Your task to perform on an android device: allow notifications from all sites in the chrome app Image 0: 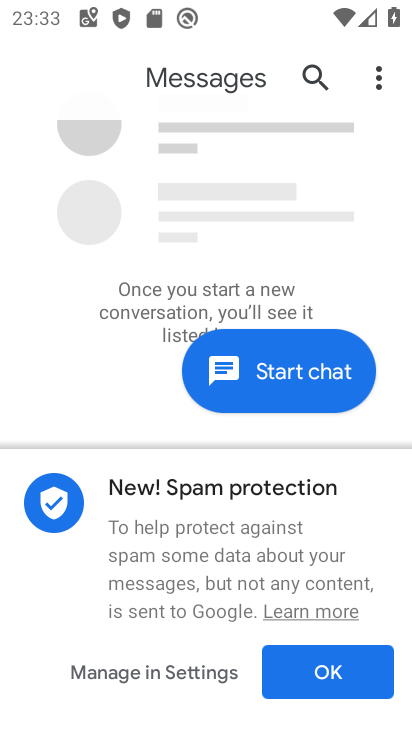
Step 0: press home button
Your task to perform on an android device: allow notifications from all sites in the chrome app Image 1: 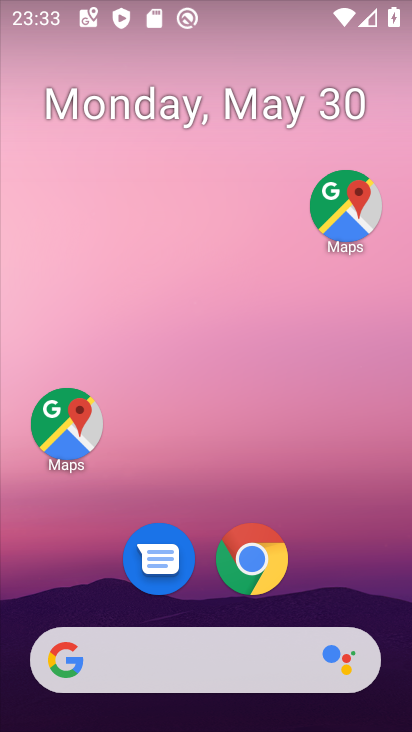
Step 1: click (251, 559)
Your task to perform on an android device: allow notifications from all sites in the chrome app Image 2: 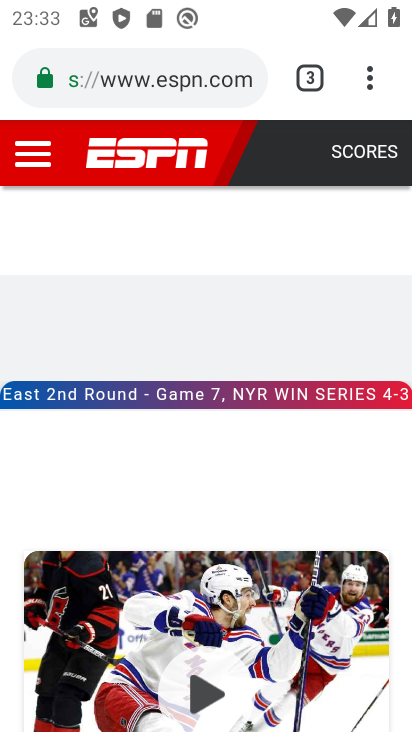
Step 2: drag from (370, 73) to (212, 630)
Your task to perform on an android device: allow notifications from all sites in the chrome app Image 3: 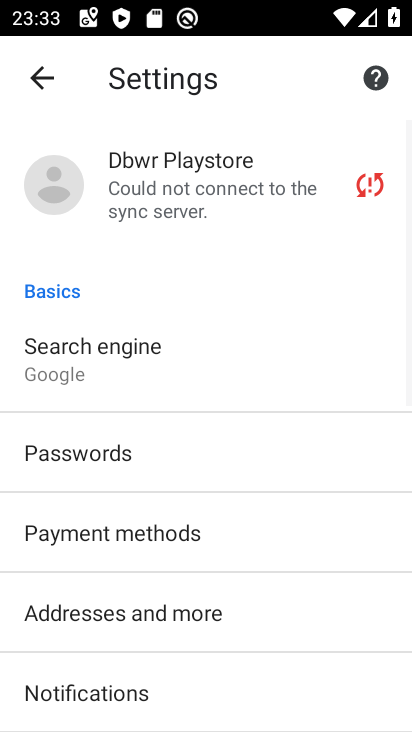
Step 3: drag from (207, 685) to (201, 235)
Your task to perform on an android device: allow notifications from all sites in the chrome app Image 4: 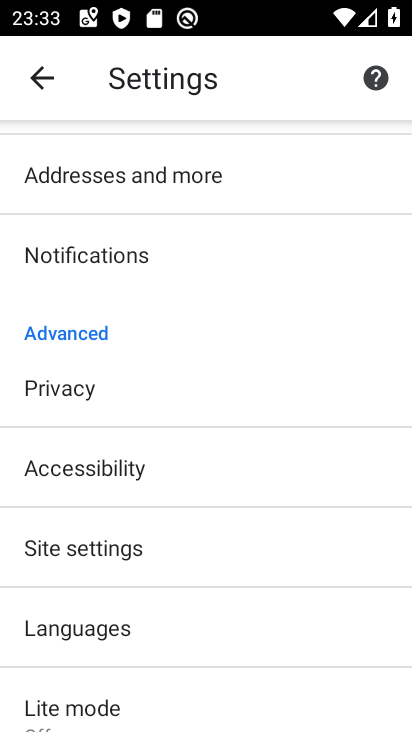
Step 4: click (137, 260)
Your task to perform on an android device: allow notifications from all sites in the chrome app Image 5: 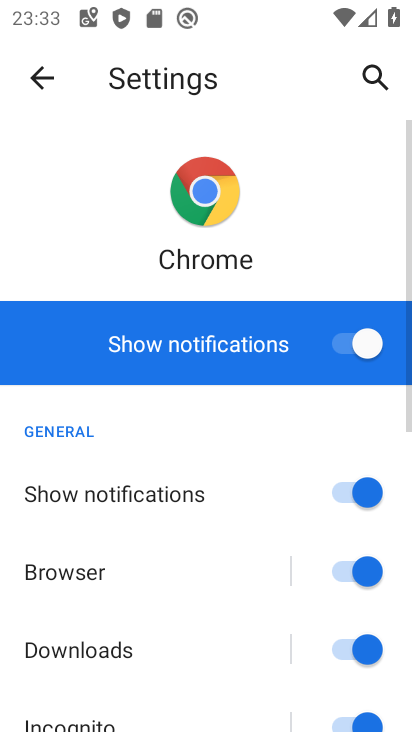
Step 5: task complete